Your task to perform on an android device: turn on location history Image 0: 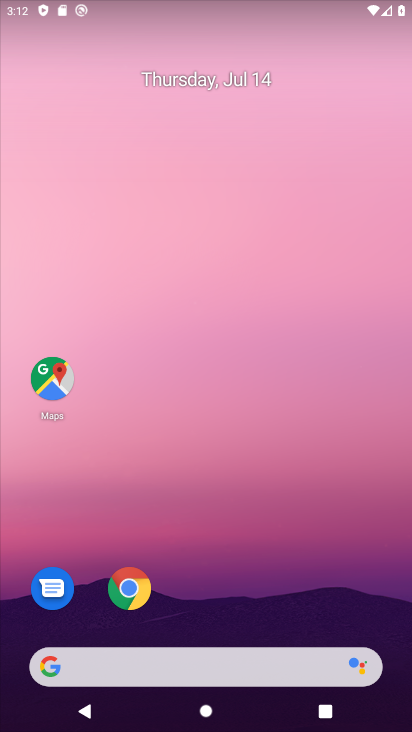
Step 0: press home button
Your task to perform on an android device: turn on location history Image 1: 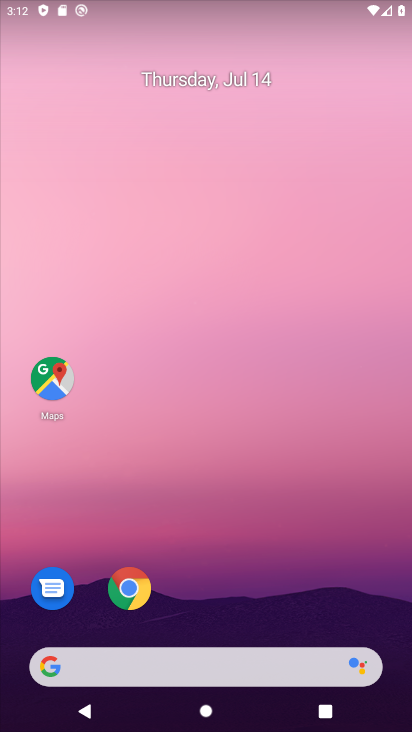
Step 1: drag from (250, 625) to (246, 91)
Your task to perform on an android device: turn on location history Image 2: 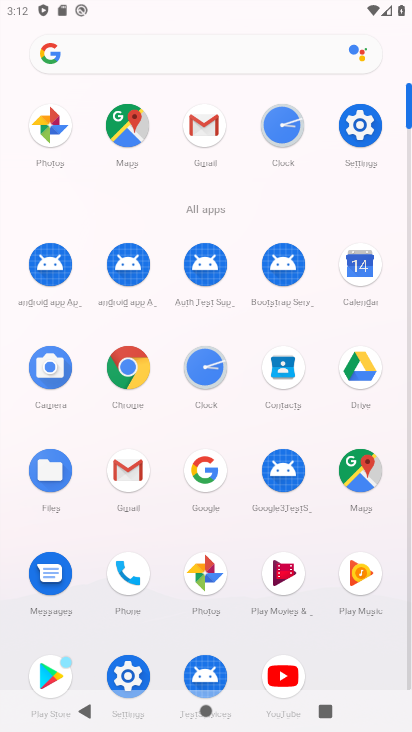
Step 2: click (359, 135)
Your task to perform on an android device: turn on location history Image 3: 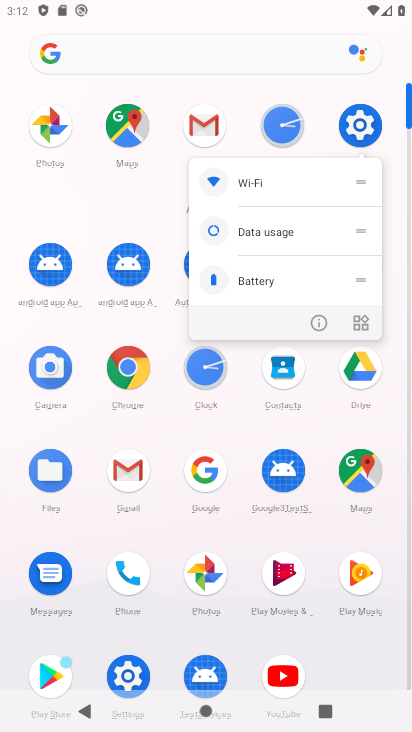
Step 3: click (359, 135)
Your task to perform on an android device: turn on location history Image 4: 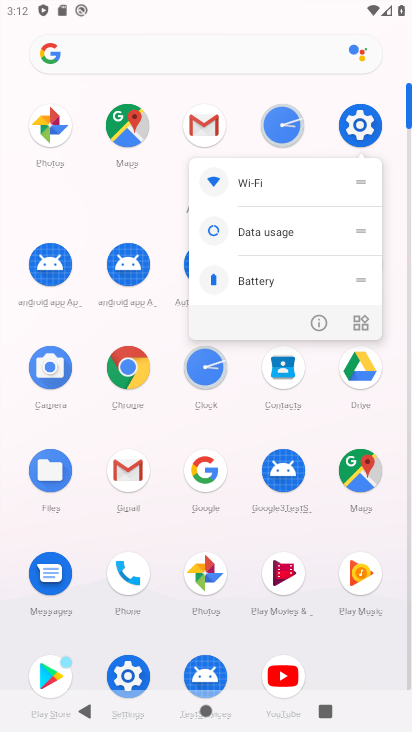
Step 4: click (359, 135)
Your task to perform on an android device: turn on location history Image 5: 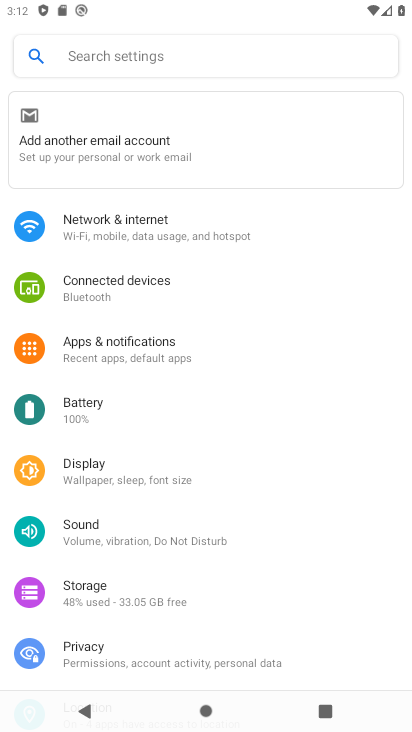
Step 5: drag from (331, 573) to (330, 136)
Your task to perform on an android device: turn on location history Image 6: 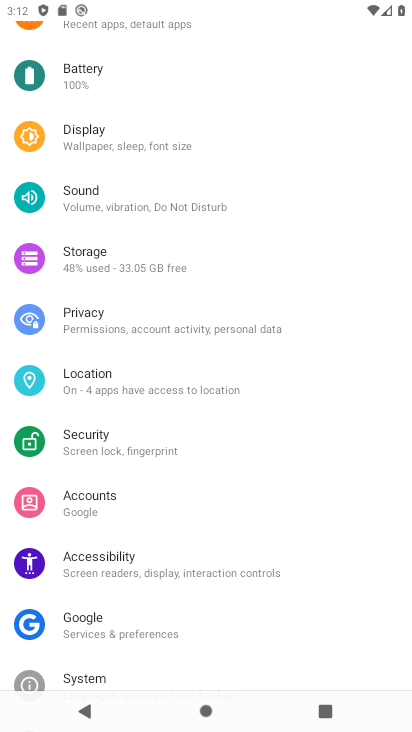
Step 6: click (81, 385)
Your task to perform on an android device: turn on location history Image 7: 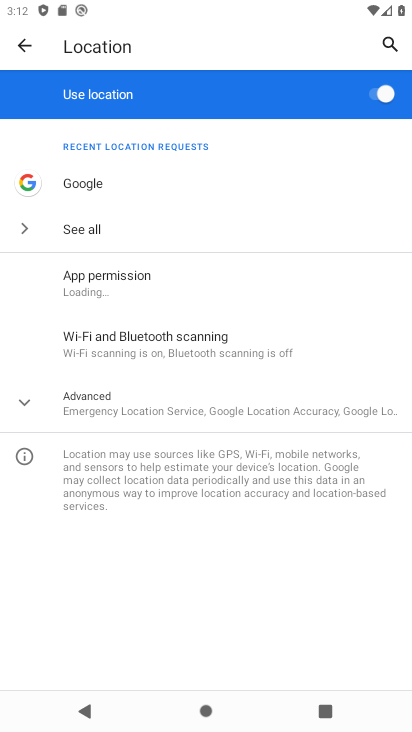
Step 7: click (96, 413)
Your task to perform on an android device: turn on location history Image 8: 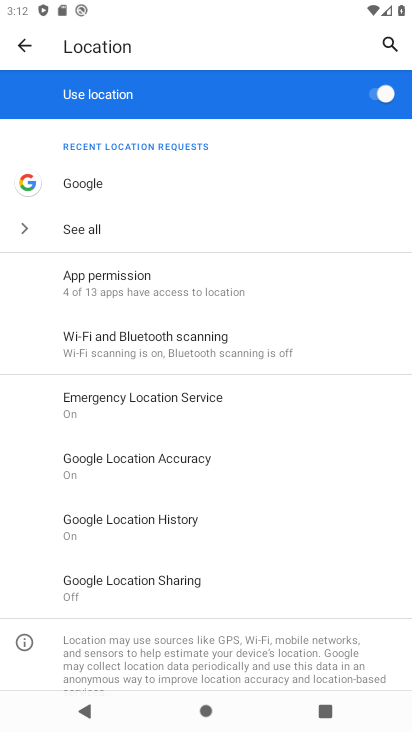
Step 8: click (121, 529)
Your task to perform on an android device: turn on location history Image 9: 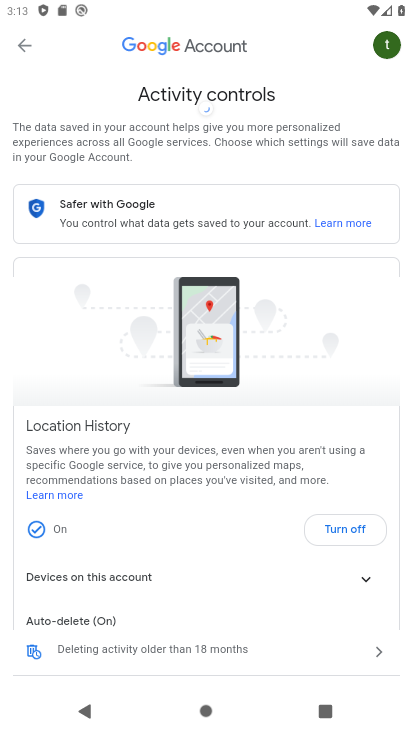
Step 9: task complete